Your task to perform on an android device: change notifications settings Image 0: 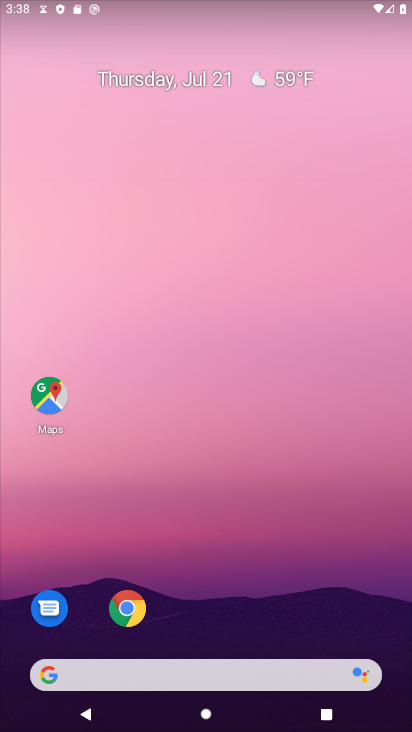
Step 0: drag from (236, 660) to (284, 4)
Your task to perform on an android device: change notifications settings Image 1: 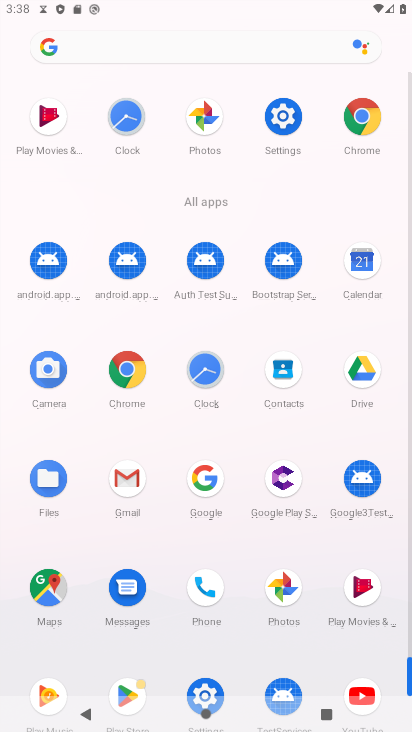
Step 1: click (278, 100)
Your task to perform on an android device: change notifications settings Image 2: 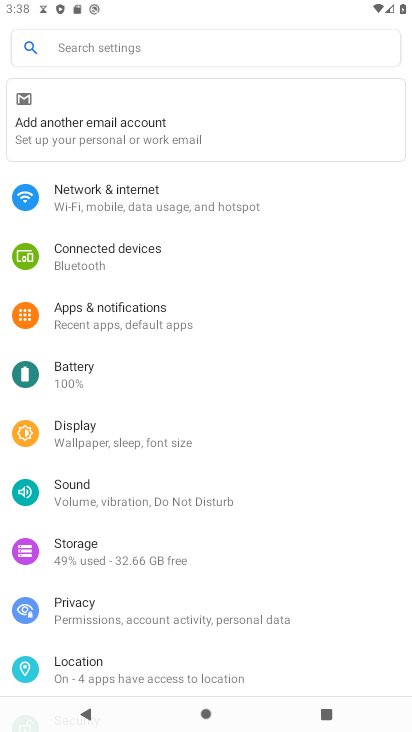
Step 2: click (146, 322)
Your task to perform on an android device: change notifications settings Image 3: 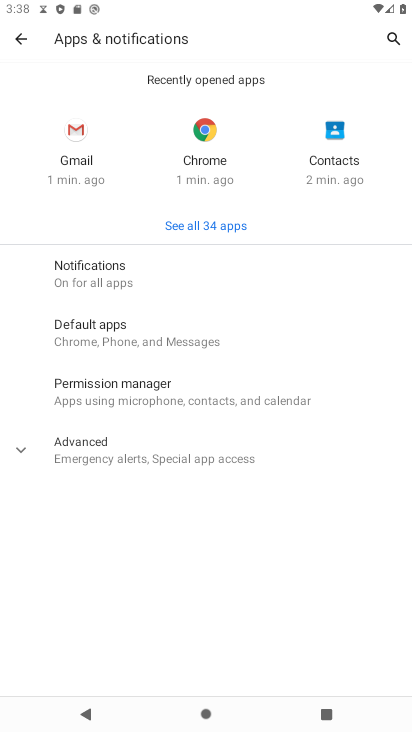
Step 3: click (127, 264)
Your task to perform on an android device: change notifications settings Image 4: 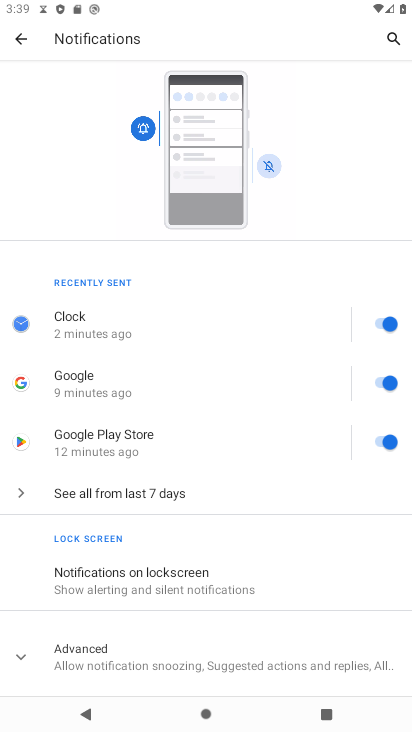
Step 4: click (388, 319)
Your task to perform on an android device: change notifications settings Image 5: 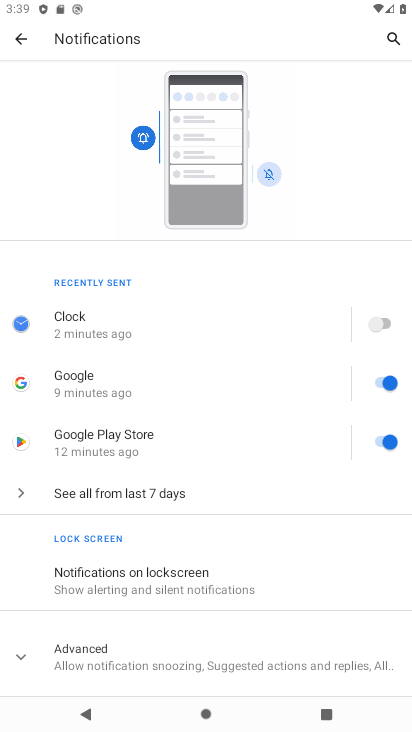
Step 5: task complete